Your task to perform on an android device: read, delete, or share a saved page in the chrome app Image 0: 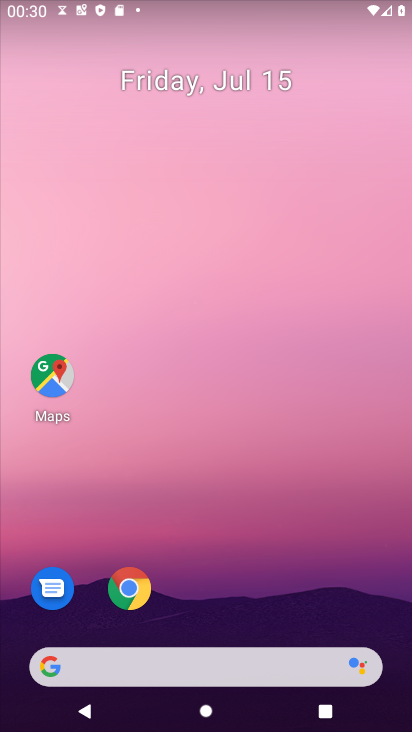
Step 0: click (127, 594)
Your task to perform on an android device: read, delete, or share a saved page in the chrome app Image 1: 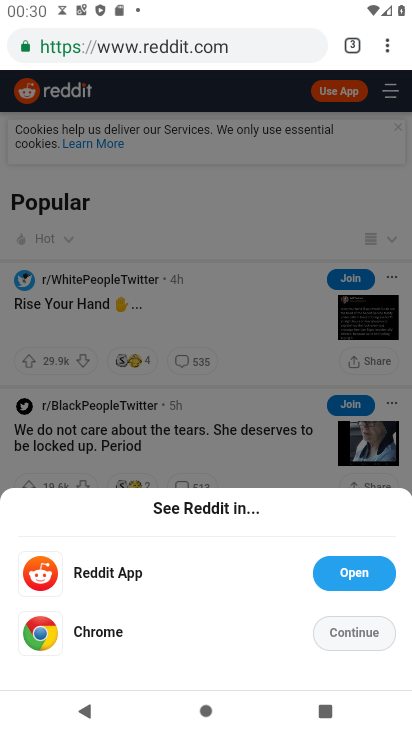
Step 1: drag from (383, 40) to (279, 295)
Your task to perform on an android device: read, delete, or share a saved page in the chrome app Image 2: 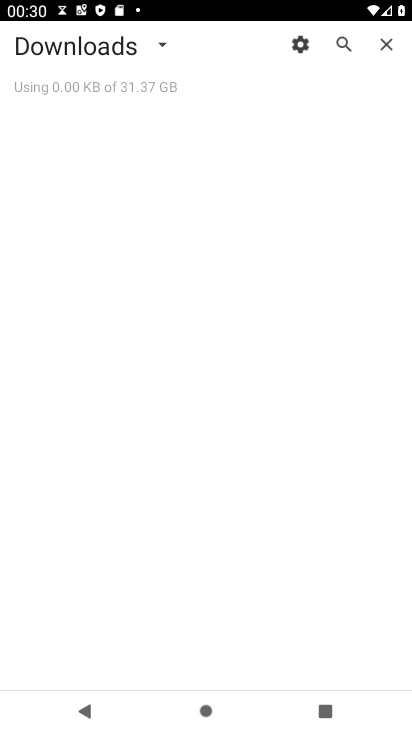
Step 2: click (166, 55)
Your task to perform on an android device: read, delete, or share a saved page in the chrome app Image 3: 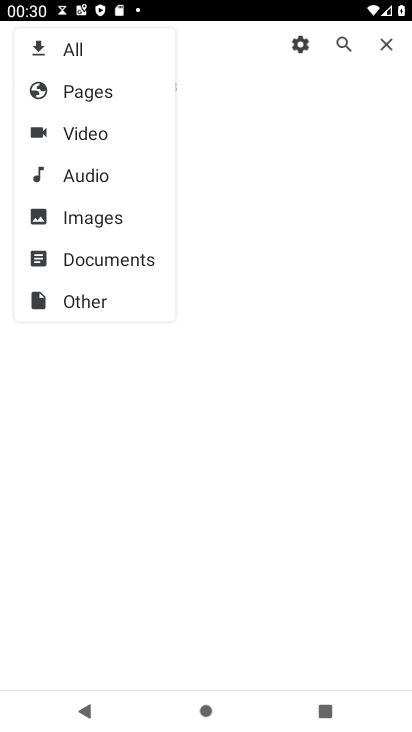
Step 3: click (71, 84)
Your task to perform on an android device: read, delete, or share a saved page in the chrome app Image 4: 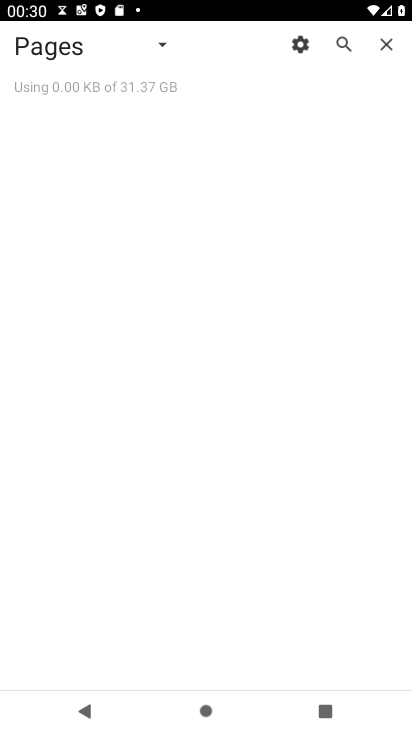
Step 4: task complete